Your task to perform on an android device: open a bookmark in the chrome app Image 0: 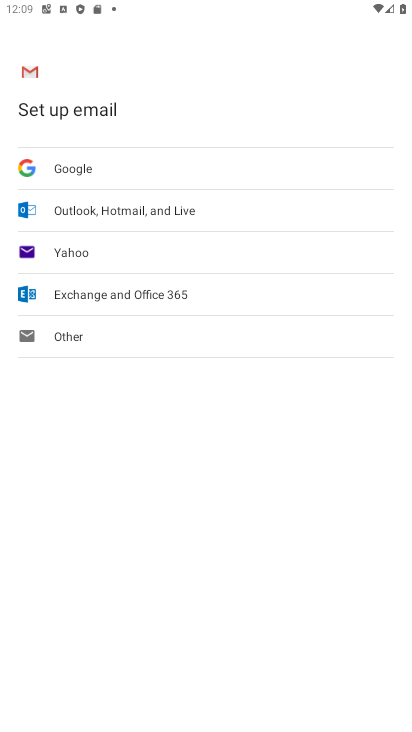
Step 0: press home button
Your task to perform on an android device: open a bookmark in the chrome app Image 1: 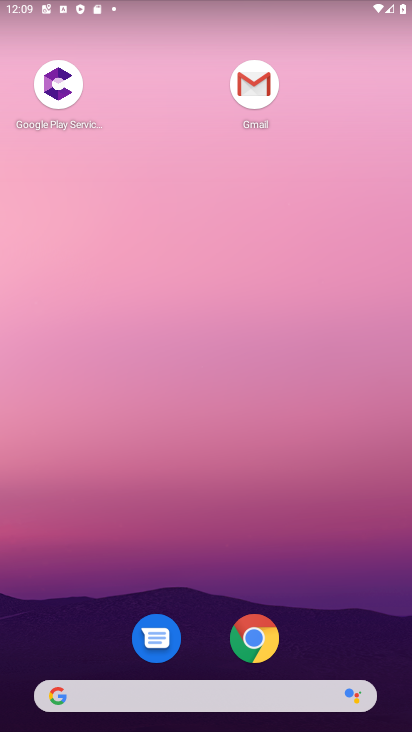
Step 1: drag from (188, 656) to (122, 64)
Your task to perform on an android device: open a bookmark in the chrome app Image 2: 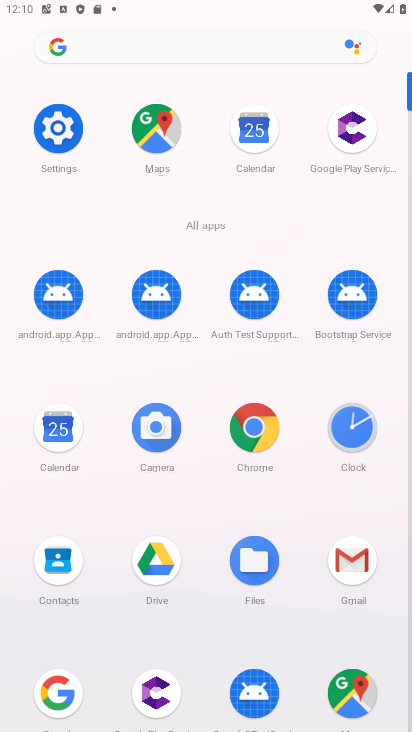
Step 2: click (248, 431)
Your task to perform on an android device: open a bookmark in the chrome app Image 3: 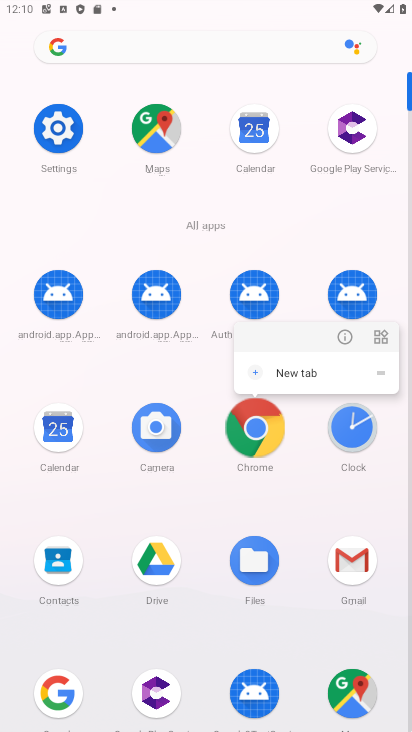
Step 3: click (265, 406)
Your task to perform on an android device: open a bookmark in the chrome app Image 4: 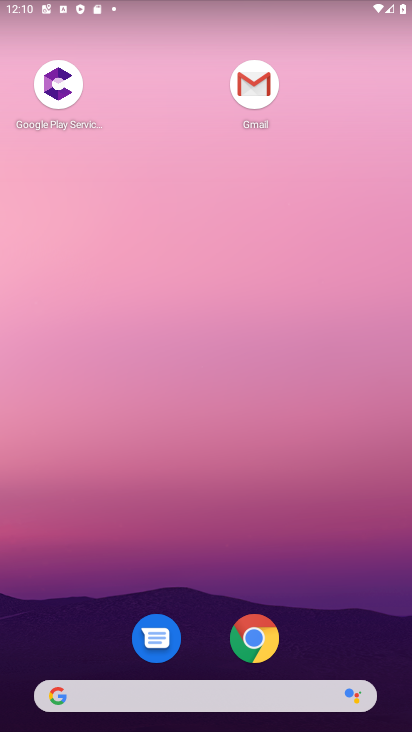
Step 4: drag from (229, 657) to (162, 62)
Your task to perform on an android device: open a bookmark in the chrome app Image 5: 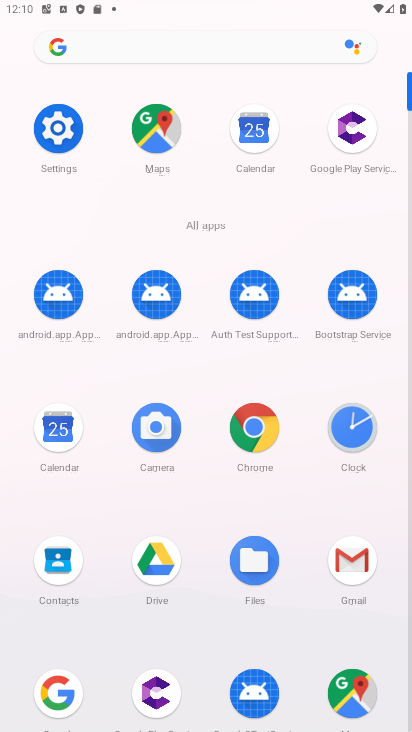
Step 5: click (251, 431)
Your task to perform on an android device: open a bookmark in the chrome app Image 6: 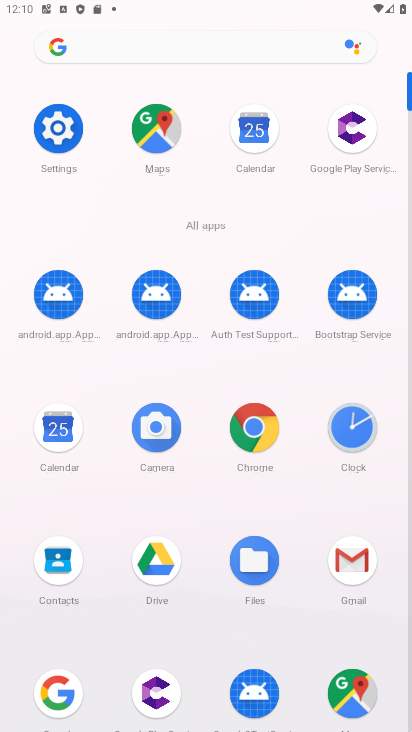
Step 6: click (241, 431)
Your task to perform on an android device: open a bookmark in the chrome app Image 7: 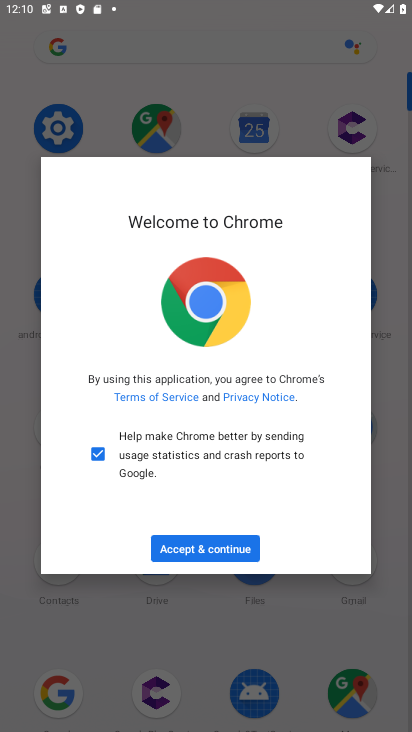
Step 7: click (231, 542)
Your task to perform on an android device: open a bookmark in the chrome app Image 8: 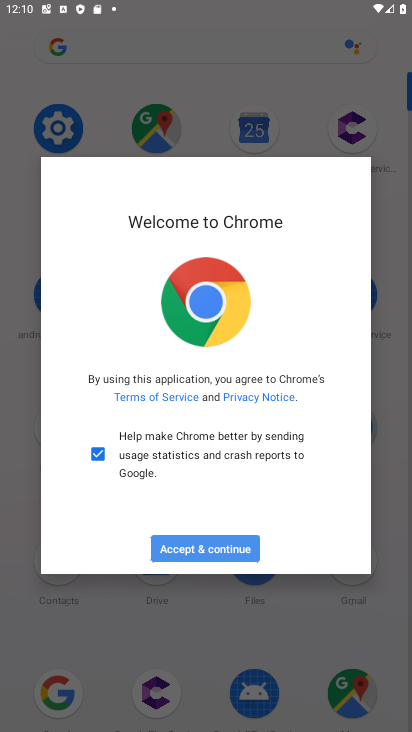
Step 8: click (231, 542)
Your task to perform on an android device: open a bookmark in the chrome app Image 9: 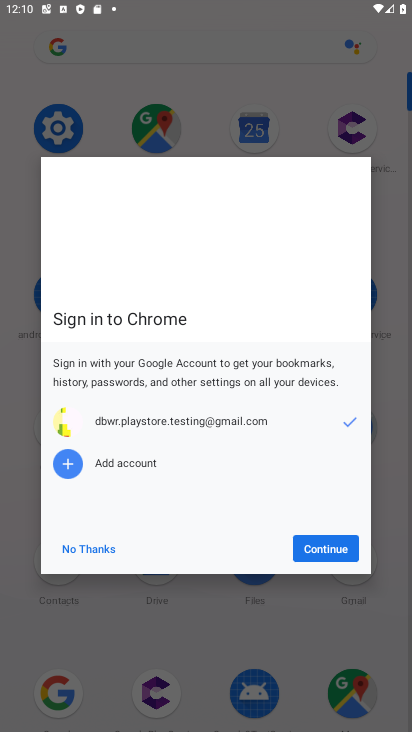
Step 9: click (227, 544)
Your task to perform on an android device: open a bookmark in the chrome app Image 10: 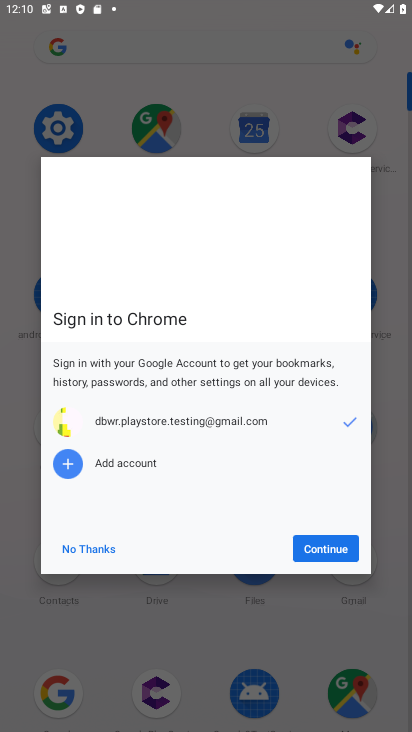
Step 10: click (227, 544)
Your task to perform on an android device: open a bookmark in the chrome app Image 11: 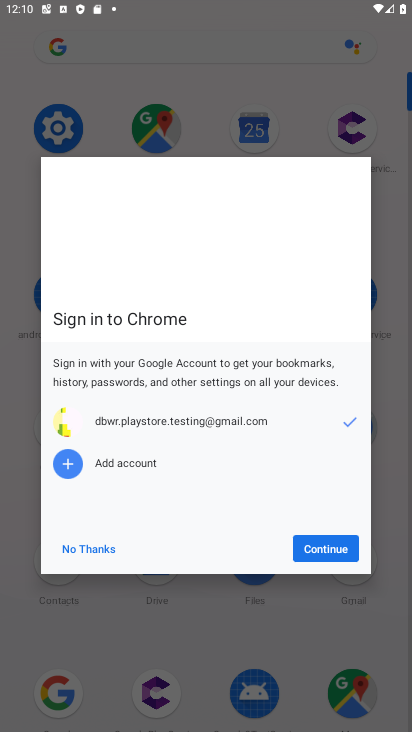
Step 11: click (330, 548)
Your task to perform on an android device: open a bookmark in the chrome app Image 12: 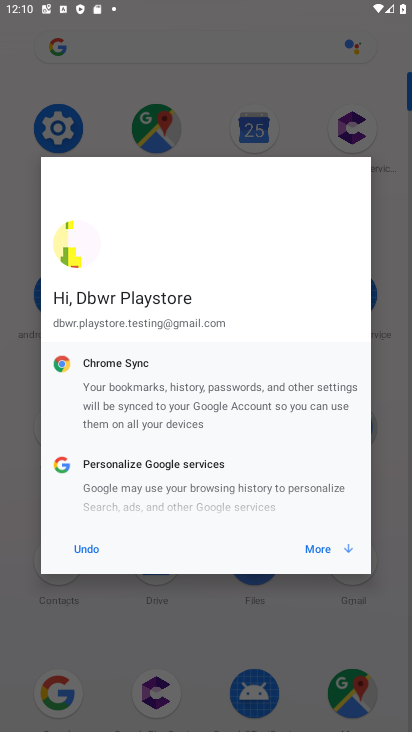
Step 12: click (329, 549)
Your task to perform on an android device: open a bookmark in the chrome app Image 13: 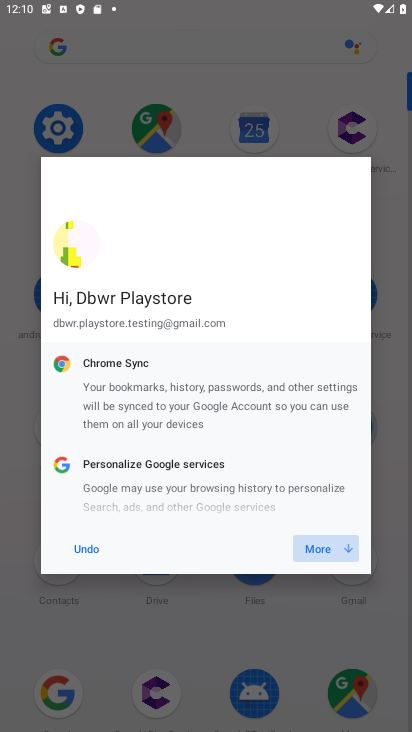
Step 13: click (328, 550)
Your task to perform on an android device: open a bookmark in the chrome app Image 14: 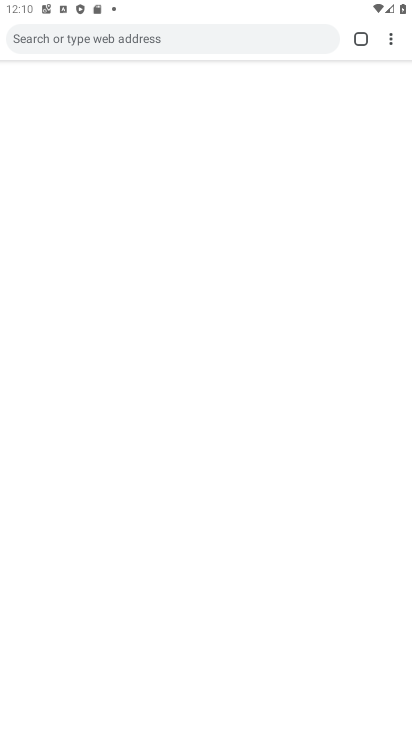
Step 14: click (329, 542)
Your task to perform on an android device: open a bookmark in the chrome app Image 15: 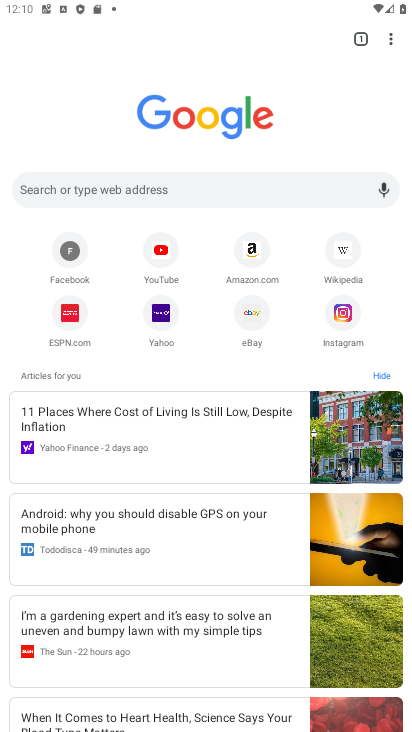
Step 15: drag from (390, 42) to (261, 161)
Your task to perform on an android device: open a bookmark in the chrome app Image 16: 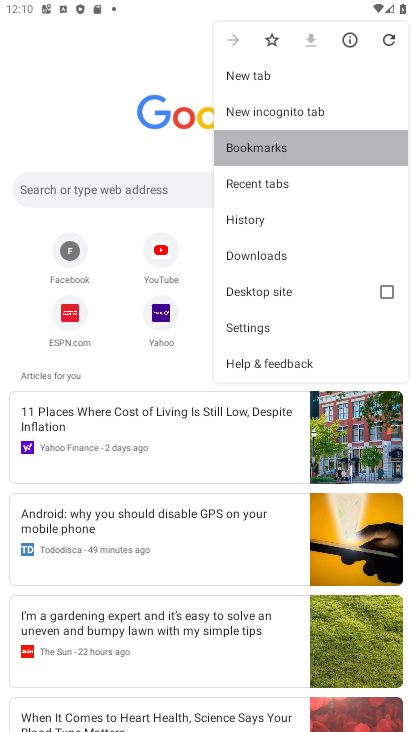
Step 16: click (261, 161)
Your task to perform on an android device: open a bookmark in the chrome app Image 17: 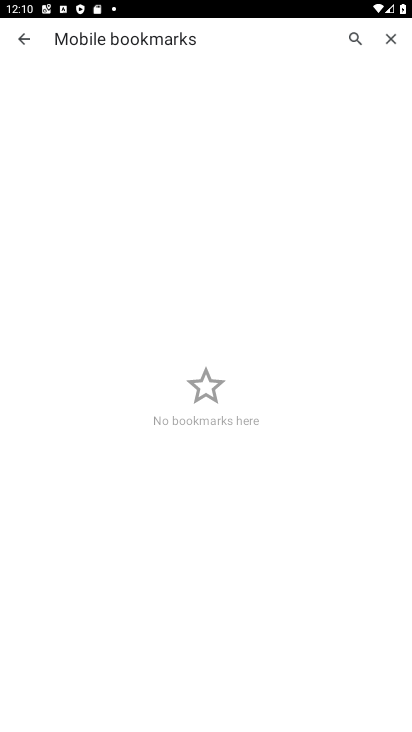
Step 17: task complete